Your task to perform on an android device: Search for a new desk on IKEA. Image 0: 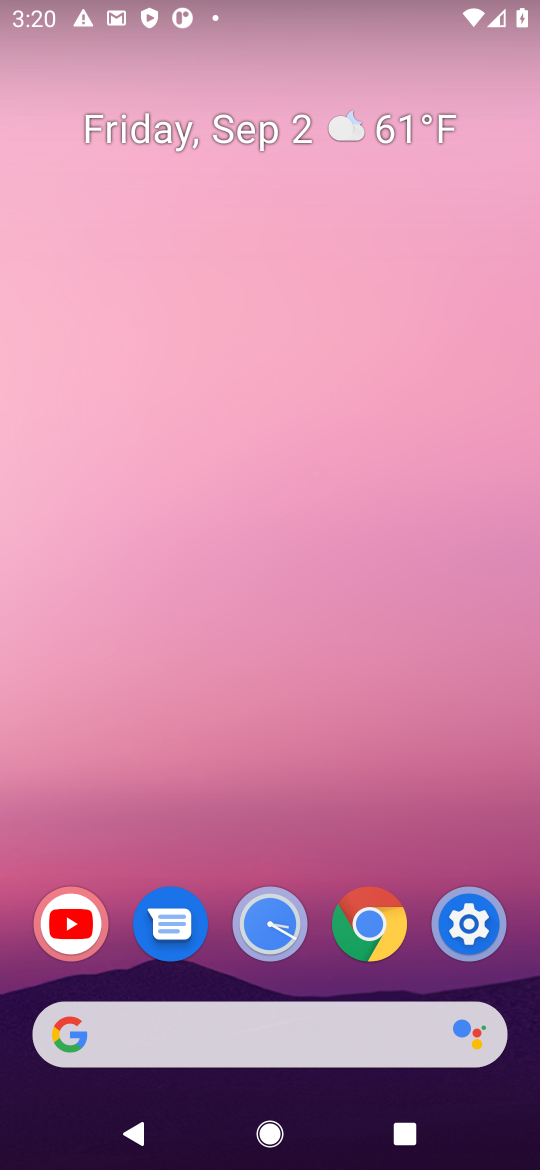
Step 0: click (395, 1020)
Your task to perform on an android device: Search for a new desk on IKEA. Image 1: 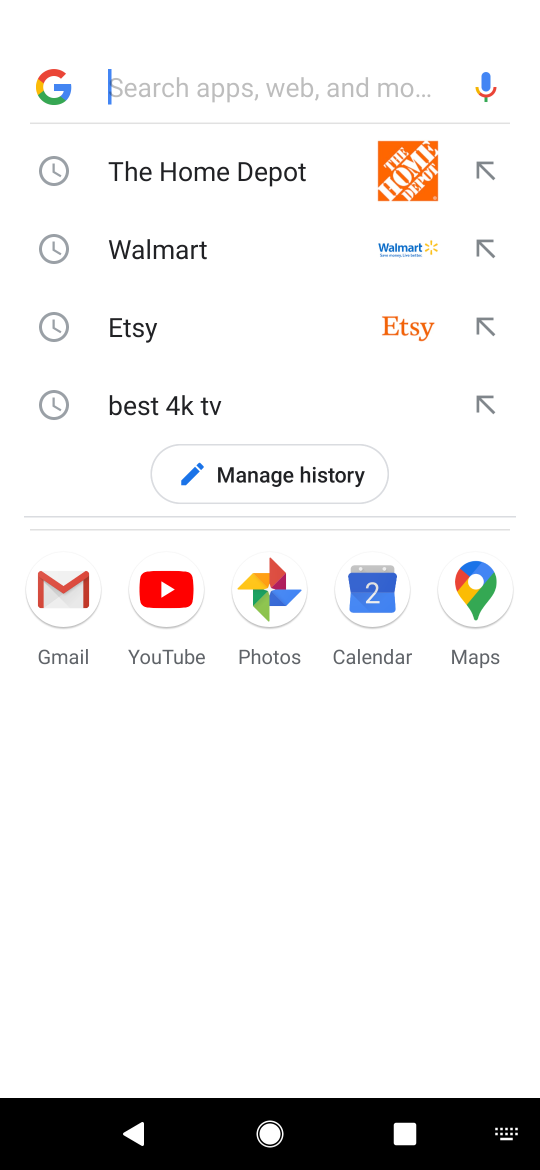
Step 1: press enter
Your task to perform on an android device: Search for a new desk on IKEA. Image 2: 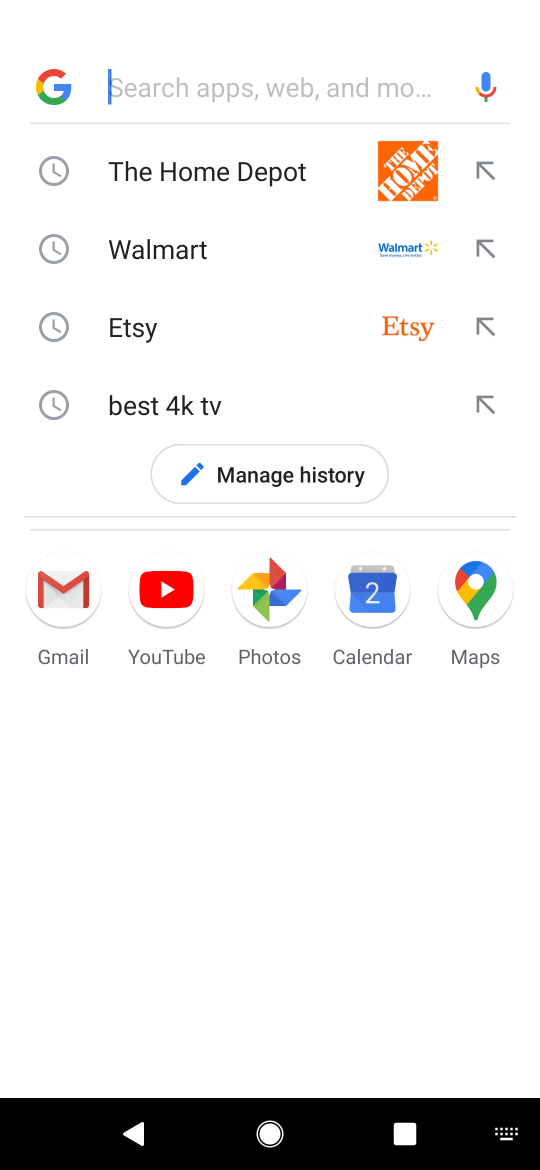
Step 2: type "ikea"
Your task to perform on an android device: Search for a new desk on IKEA. Image 3: 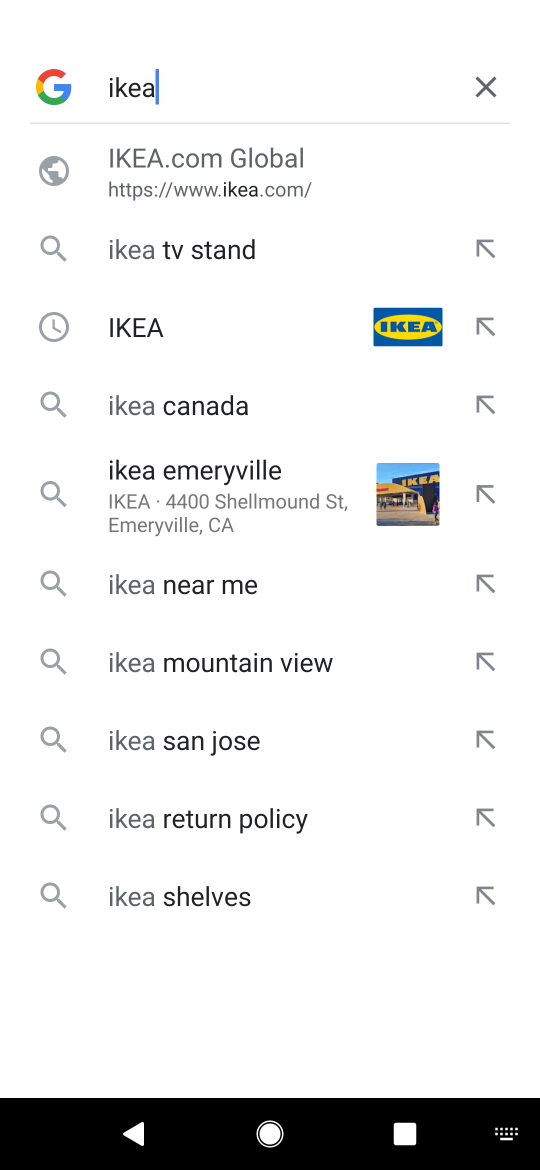
Step 3: click (273, 167)
Your task to perform on an android device: Search for a new desk on IKEA. Image 4: 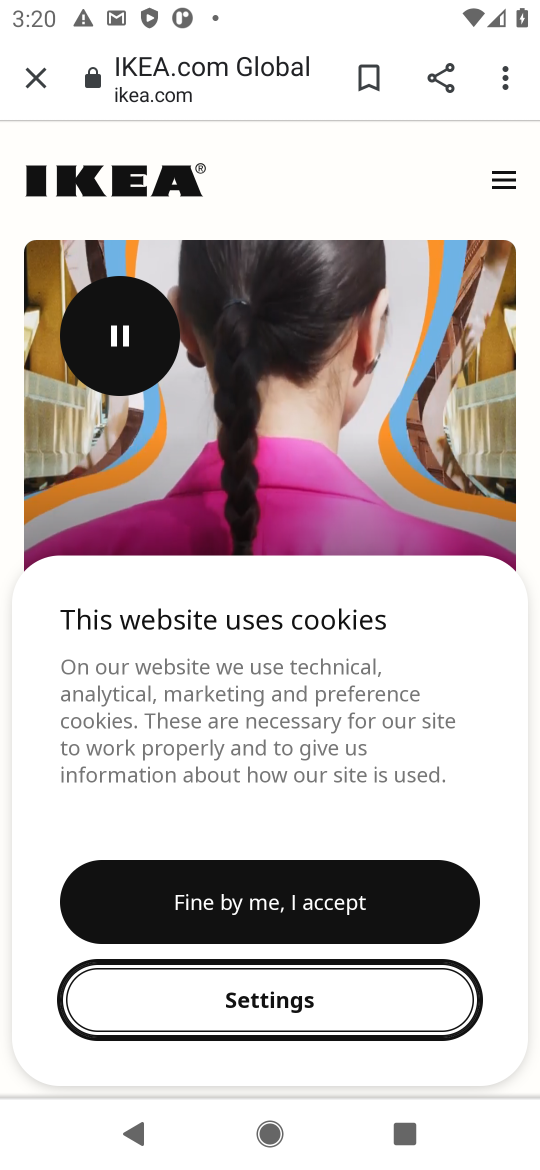
Step 4: click (277, 892)
Your task to perform on an android device: Search for a new desk on IKEA. Image 5: 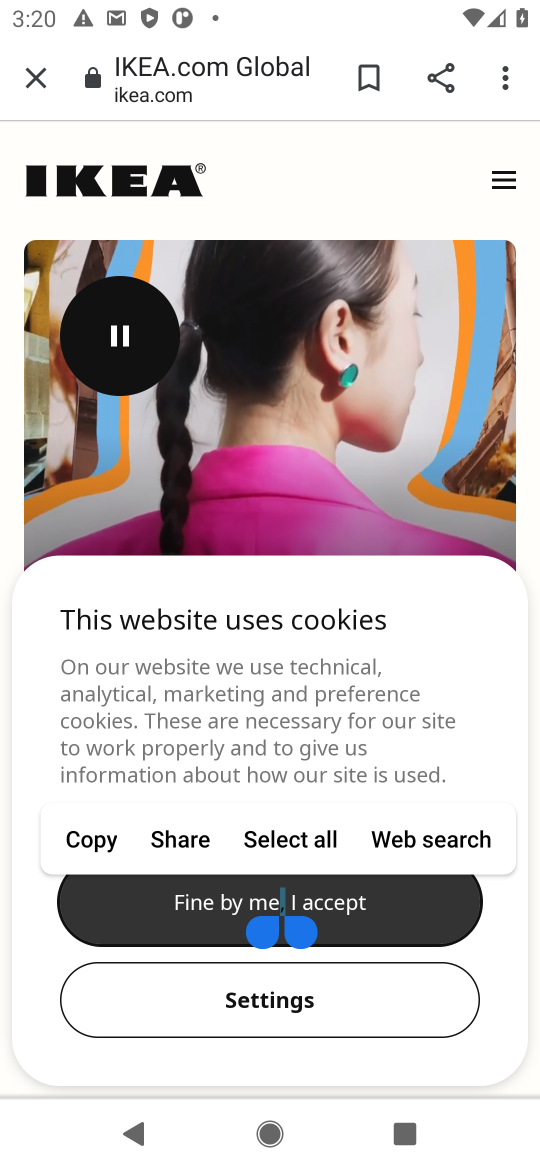
Step 5: task complete